Your task to perform on an android device: turn on location history Image 0: 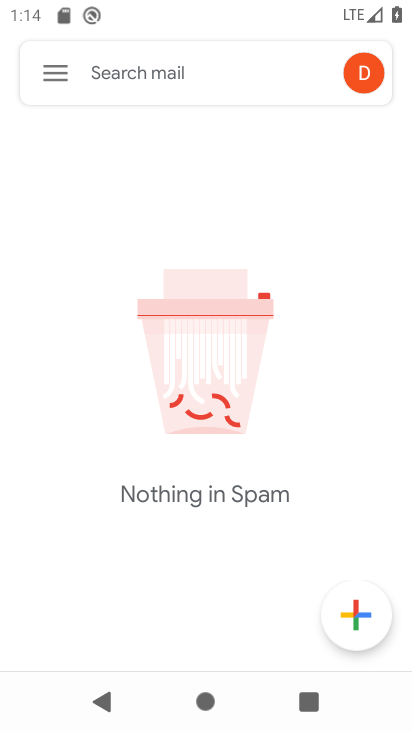
Step 0: press home button
Your task to perform on an android device: turn on location history Image 1: 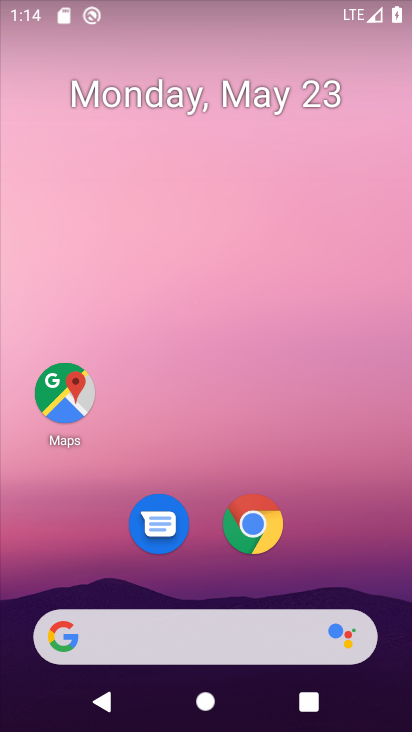
Step 1: drag from (231, 438) to (232, 0)
Your task to perform on an android device: turn on location history Image 2: 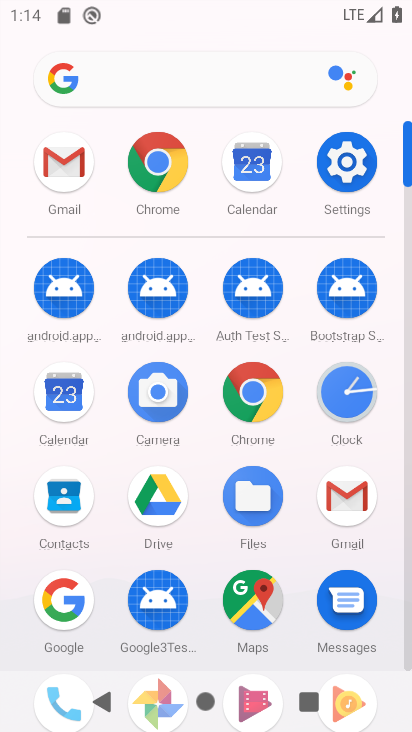
Step 2: click (345, 160)
Your task to perform on an android device: turn on location history Image 3: 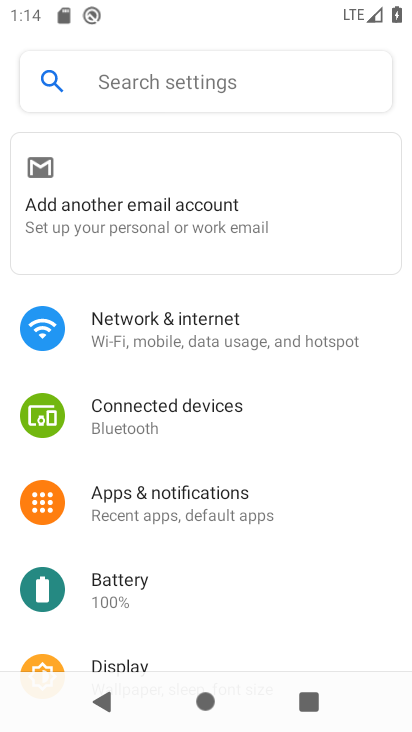
Step 3: drag from (180, 414) to (239, 83)
Your task to perform on an android device: turn on location history Image 4: 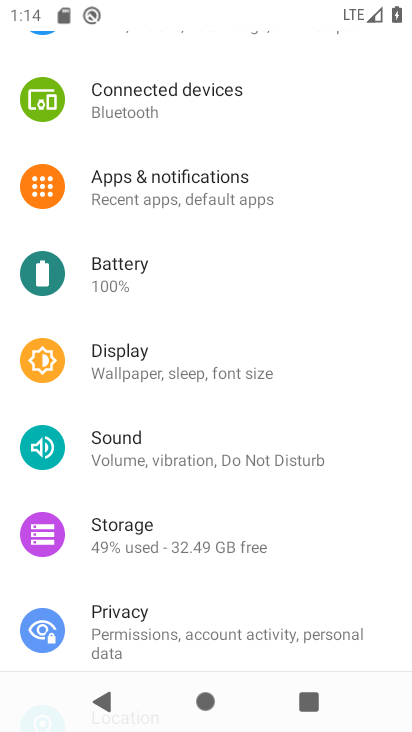
Step 4: drag from (214, 535) to (269, 105)
Your task to perform on an android device: turn on location history Image 5: 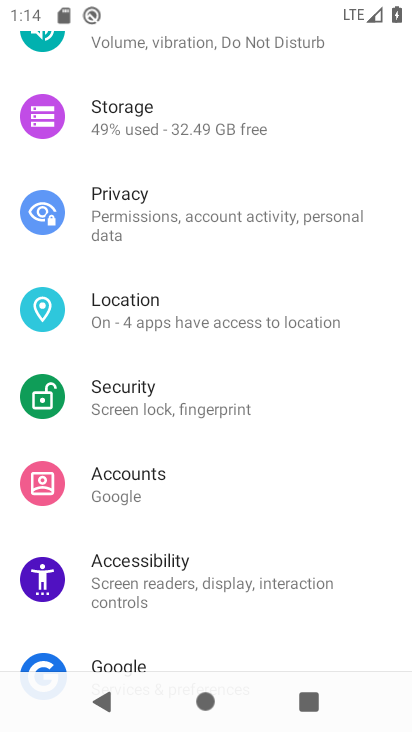
Step 5: click (226, 310)
Your task to perform on an android device: turn on location history Image 6: 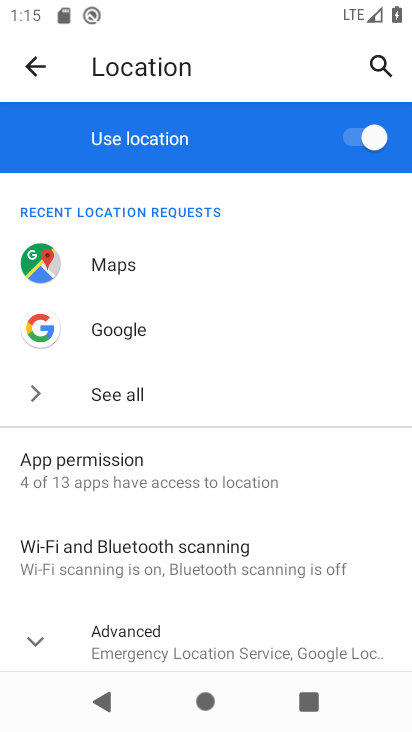
Step 6: click (36, 641)
Your task to perform on an android device: turn on location history Image 7: 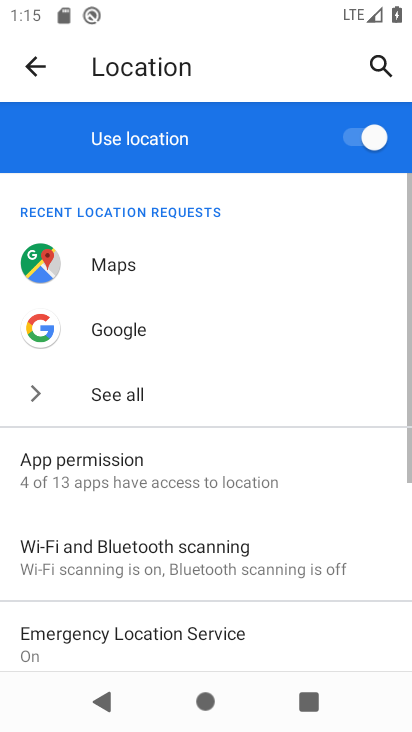
Step 7: task complete